Your task to perform on an android device: When is my next appointment? Image 0: 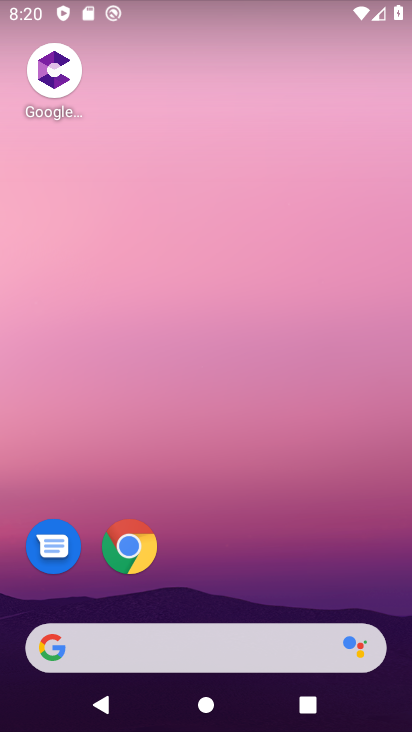
Step 0: drag from (399, 704) to (313, 69)
Your task to perform on an android device: When is my next appointment? Image 1: 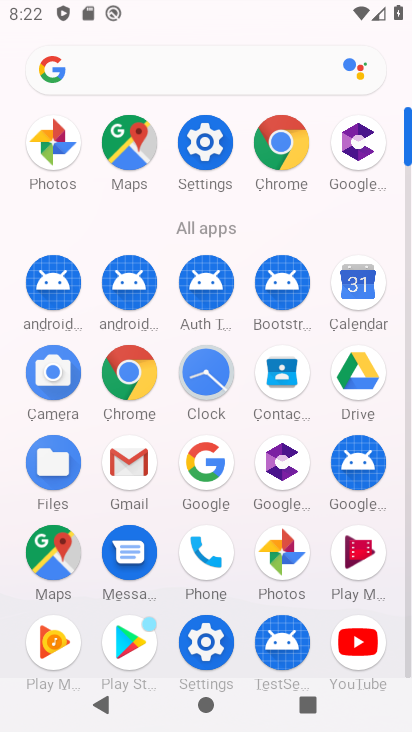
Step 1: click (342, 308)
Your task to perform on an android device: When is my next appointment? Image 2: 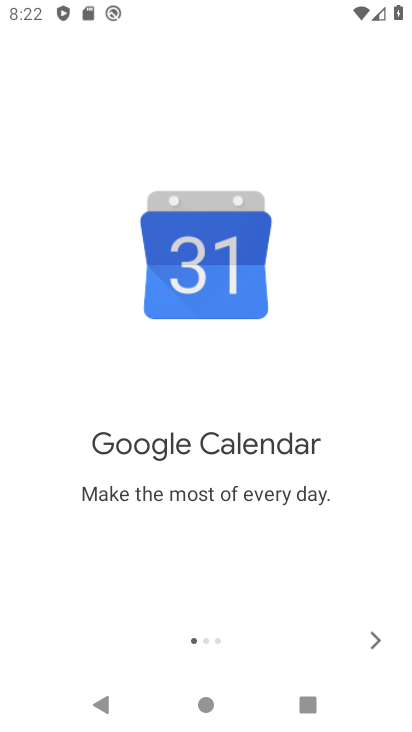
Step 2: click (368, 646)
Your task to perform on an android device: When is my next appointment? Image 3: 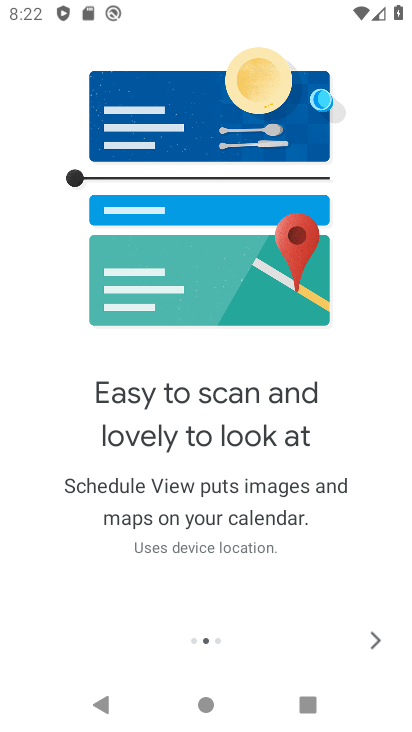
Step 3: click (368, 646)
Your task to perform on an android device: When is my next appointment? Image 4: 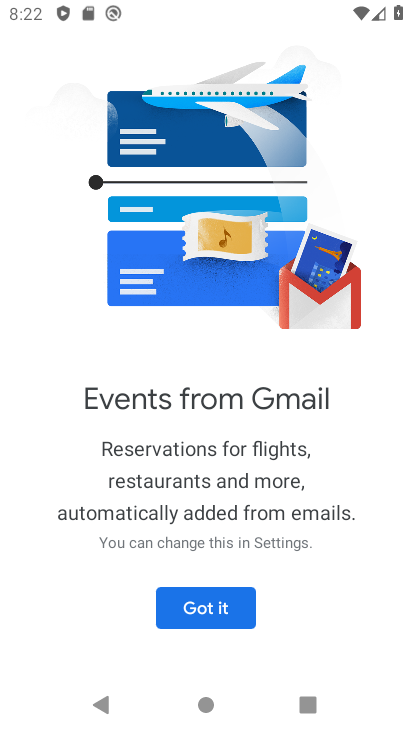
Step 4: click (228, 607)
Your task to perform on an android device: When is my next appointment? Image 5: 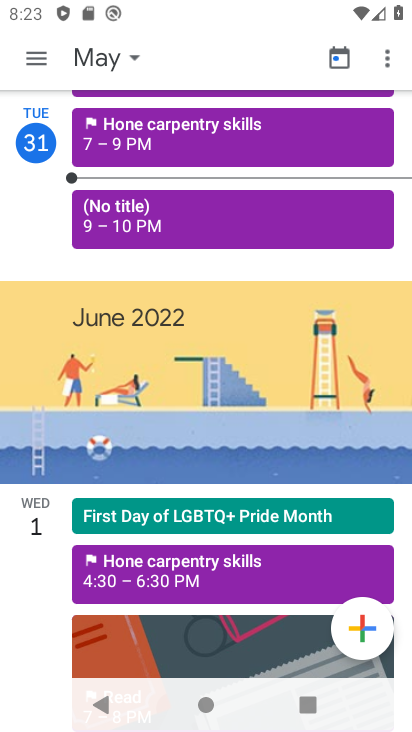
Step 5: click (33, 57)
Your task to perform on an android device: When is my next appointment? Image 6: 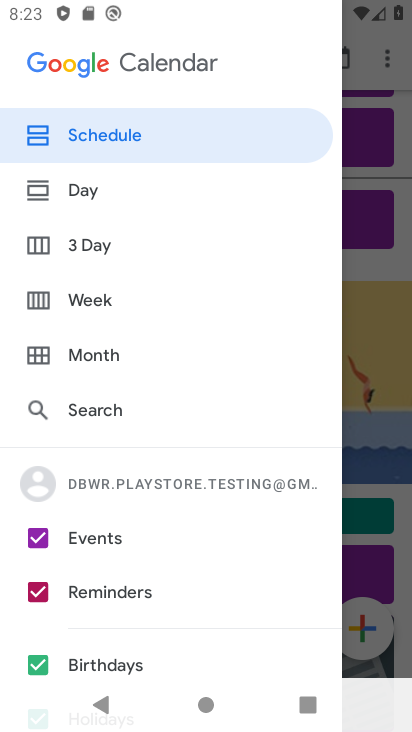
Step 6: click (91, 137)
Your task to perform on an android device: When is my next appointment? Image 7: 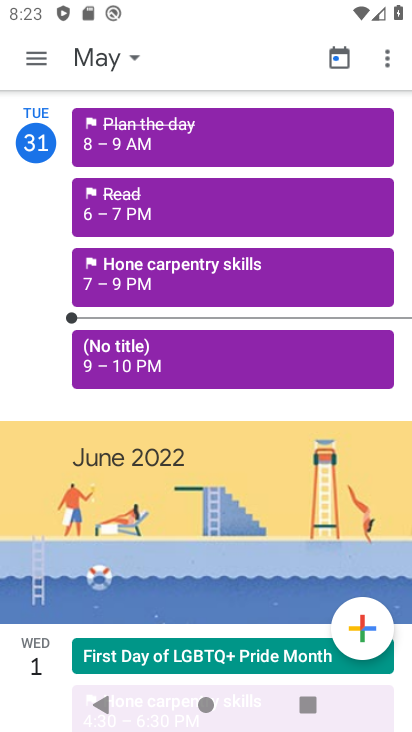
Step 7: task complete